Your task to perform on an android device: open wifi settings Image 0: 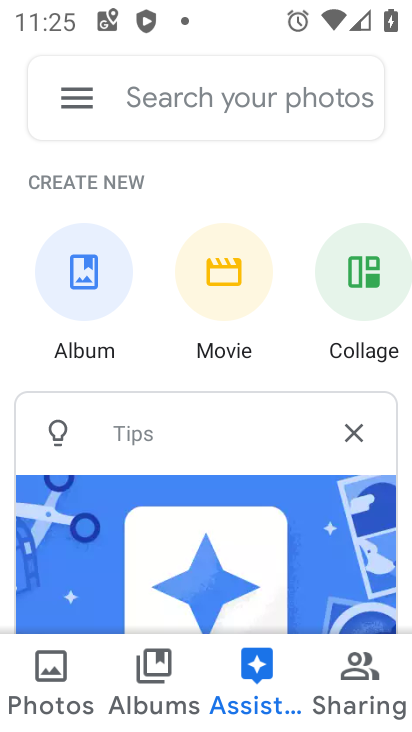
Step 0: press home button
Your task to perform on an android device: open wifi settings Image 1: 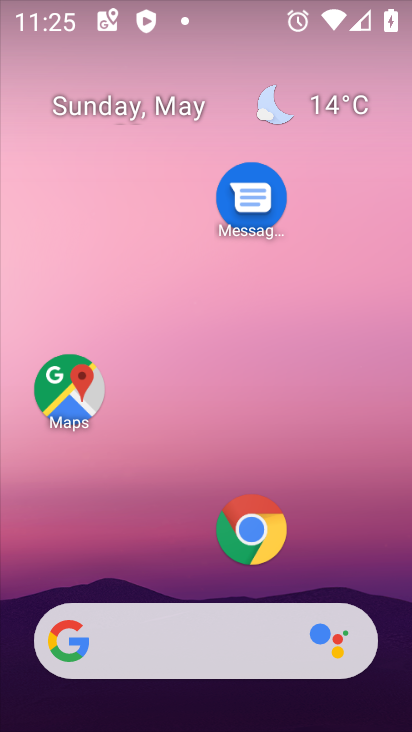
Step 1: drag from (182, 571) to (205, 0)
Your task to perform on an android device: open wifi settings Image 2: 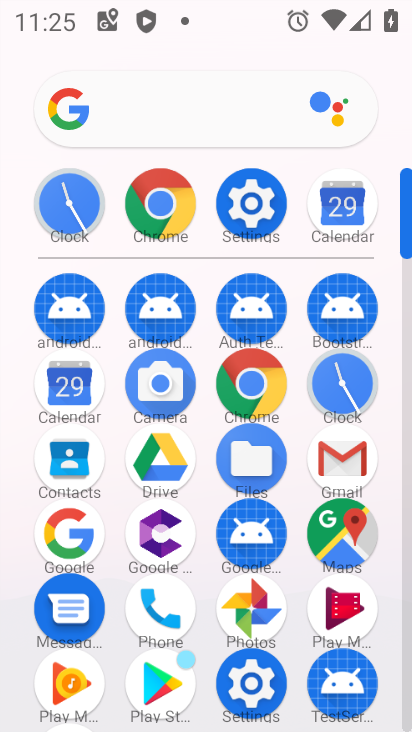
Step 2: click (246, 214)
Your task to perform on an android device: open wifi settings Image 3: 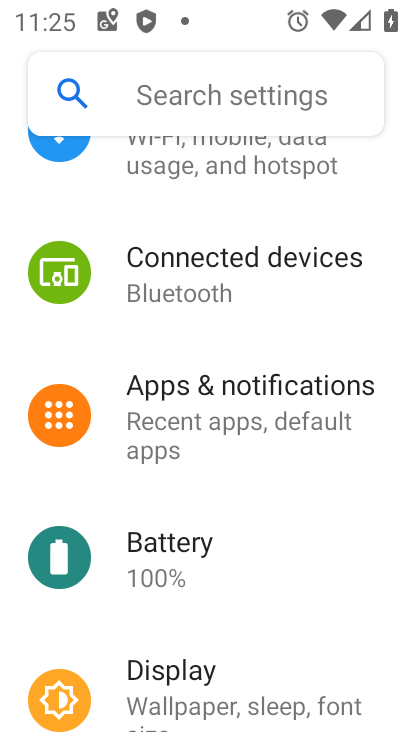
Step 3: drag from (235, 243) to (228, 563)
Your task to perform on an android device: open wifi settings Image 4: 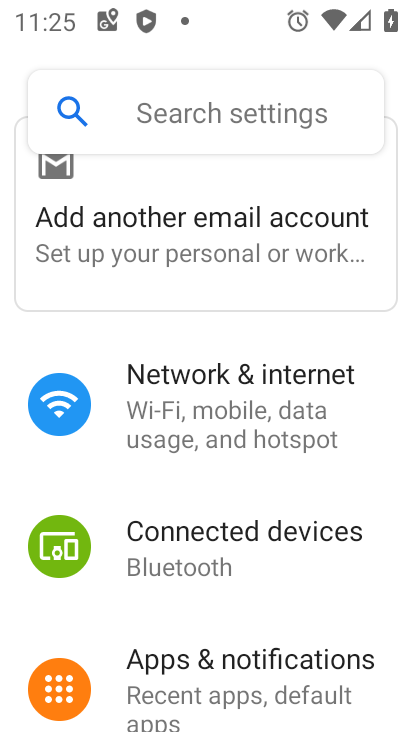
Step 4: click (242, 415)
Your task to perform on an android device: open wifi settings Image 5: 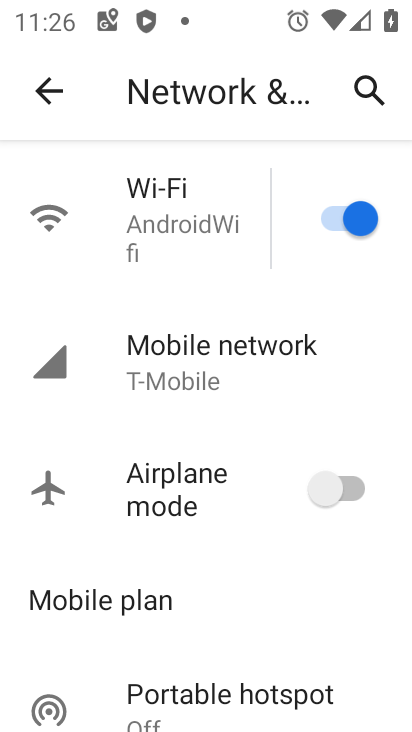
Step 5: click (164, 219)
Your task to perform on an android device: open wifi settings Image 6: 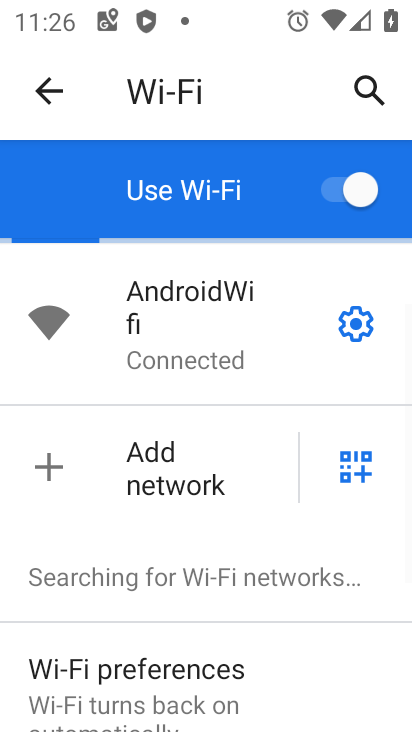
Step 6: task complete